Your task to perform on an android device: set an alarm Image 0: 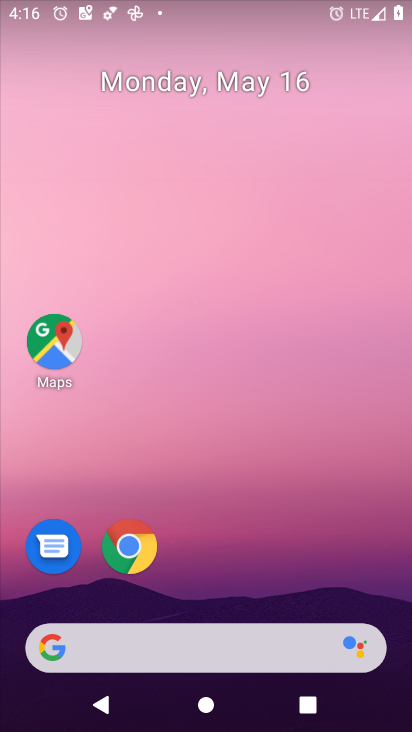
Step 0: drag from (351, 580) to (333, 134)
Your task to perform on an android device: set an alarm Image 1: 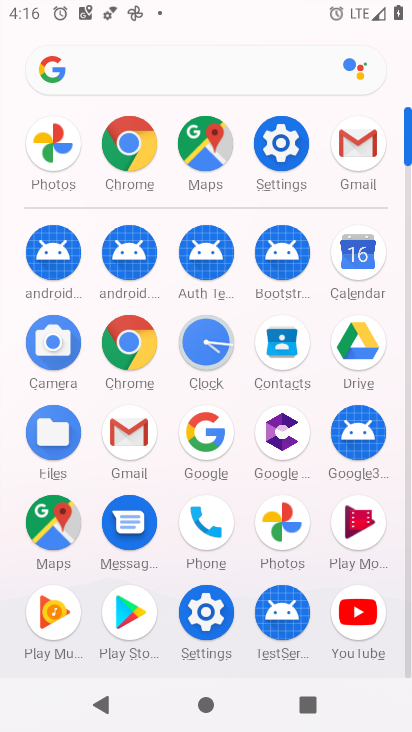
Step 1: click (217, 351)
Your task to perform on an android device: set an alarm Image 2: 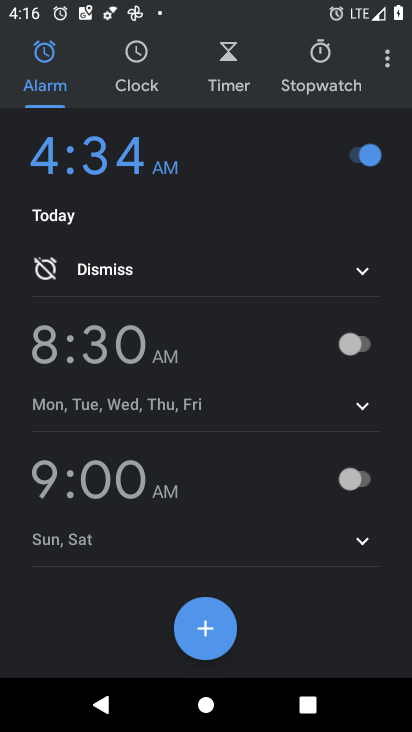
Step 2: click (217, 648)
Your task to perform on an android device: set an alarm Image 3: 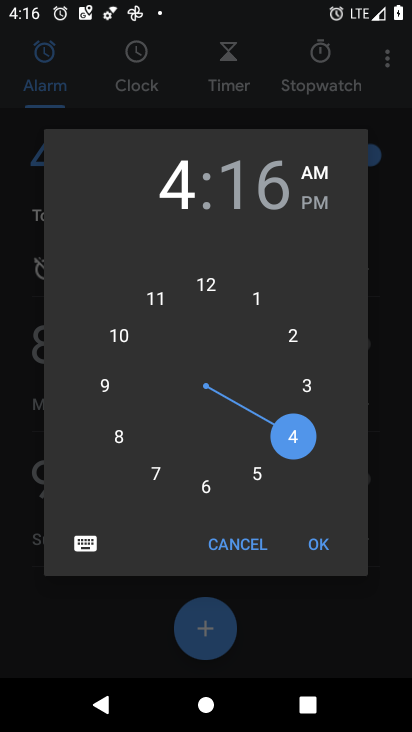
Step 3: click (247, 474)
Your task to perform on an android device: set an alarm Image 4: 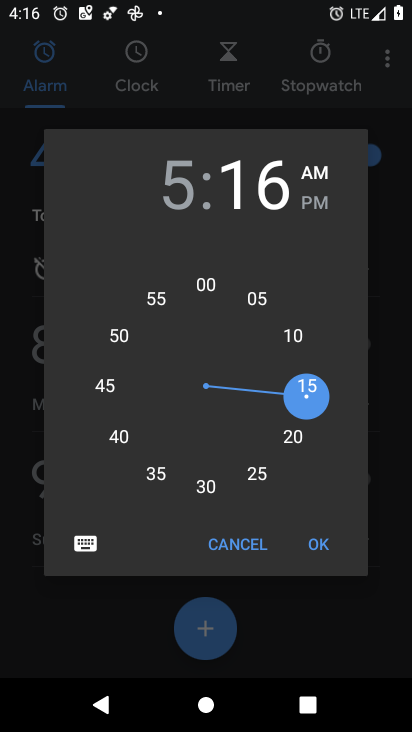
Step 4: click (327, 551)
Your task to perform on an android device: set an alarm Image 5: 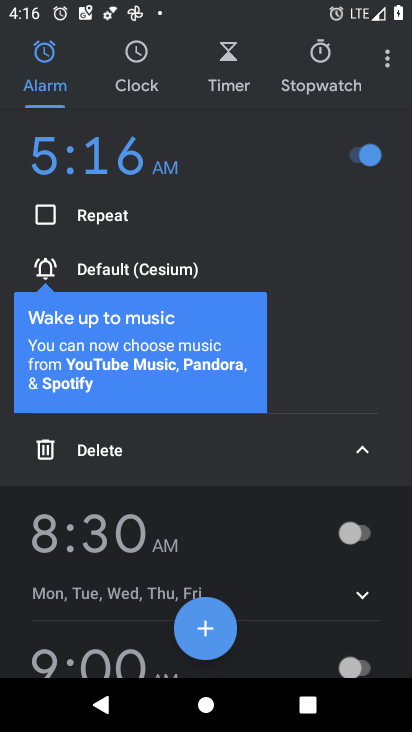
Step 5: task complete